Your task to perform on an android device: toggle location history Image 0: 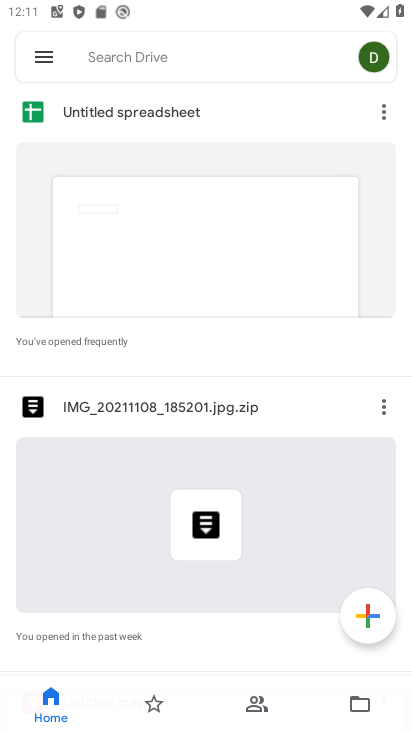
Step 0: press home button
Your task to perform on an android device: toggle location history Image 1: 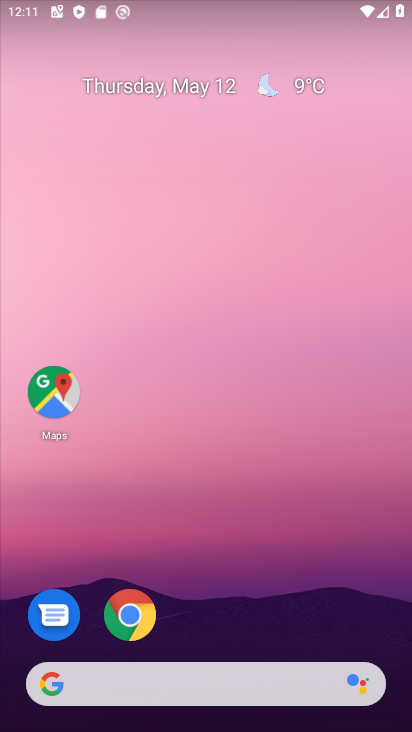
Step 1: drag from (234, 612) to (145, 59)
Your task to perform on an android device: toggle location history Image 2: 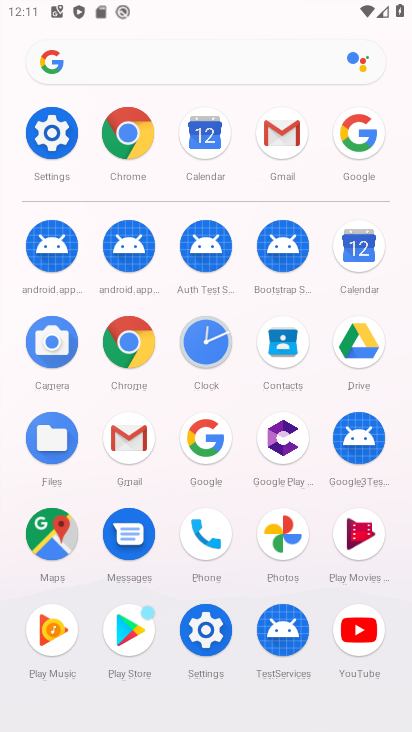
Step 2: click (55, 142)
Your task to perform on an android device: toggle location history Image 3: 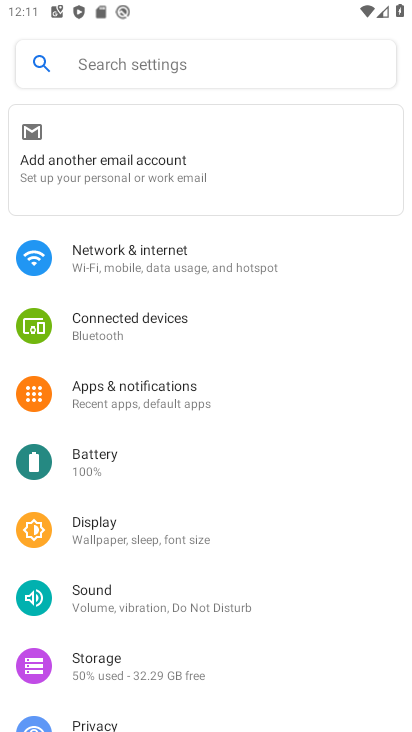
Step 3: drag from (197, 641) to (48, 192)
Your task to perform on an android device: toggle location history Image 4: 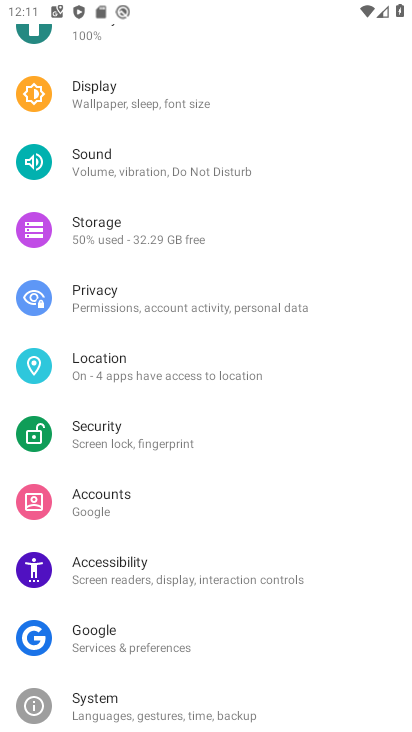
Step 4: click (138, 376)
Your task to perform on an android device: toggle location history Image 5: 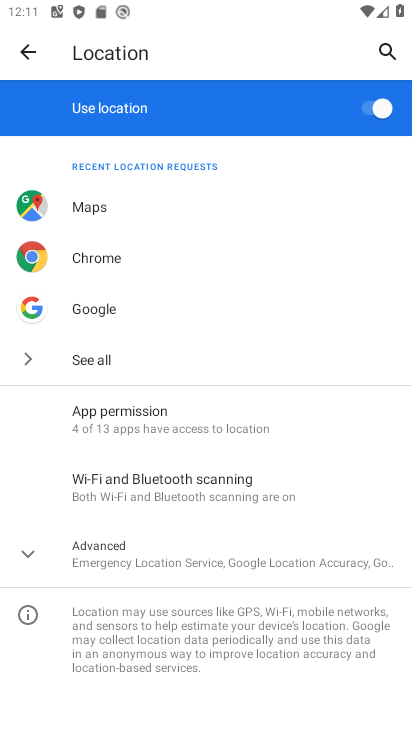
Step 5: click (150, 557)
Your task to perform on an android device: toggle location history Image 6: 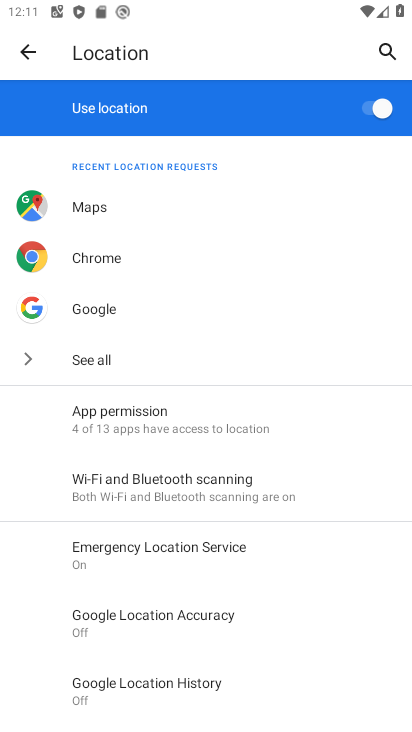
Step 6: click (138, 684)
Your task to perform on an android device: toggle location history Image 7: 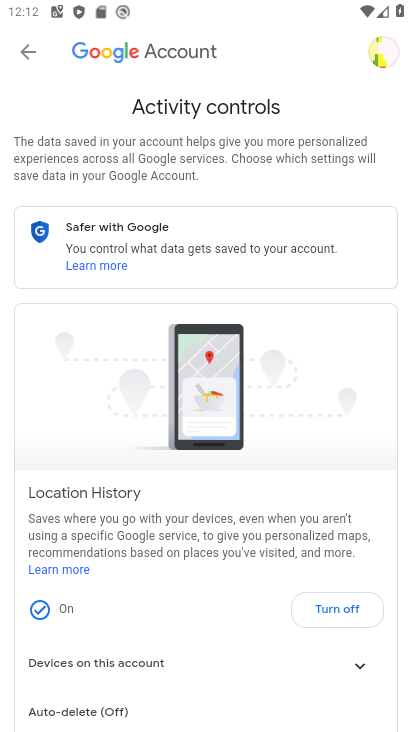
Step 7: drag from (233, 614) to (86, 209)
Your task to perform on an android device: toggle location history Image 8: 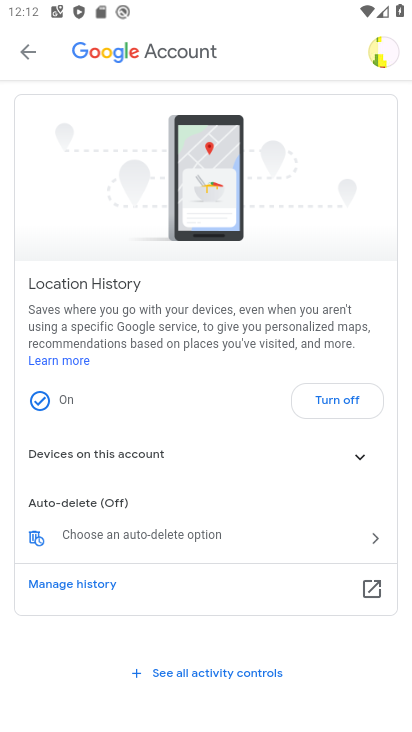
Step 8: click (316, 390)
Your task to perform on an android device: toggle location history Image 9: 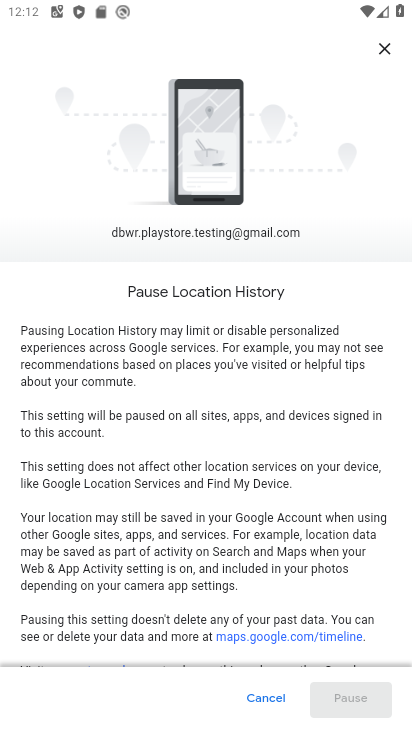
Step 9: drag from (324, 533) to (237, 154)
Your task to perform on an android device: toggle location history Image 10: 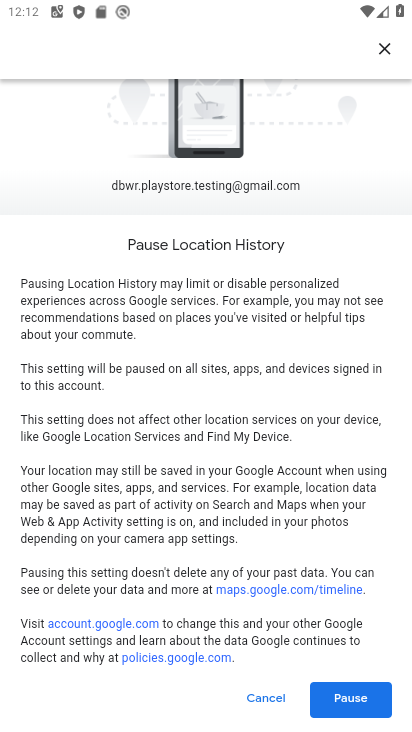
Step 10: click (377, 691)
Your task to perform on an android device: toggle location history Image 11: 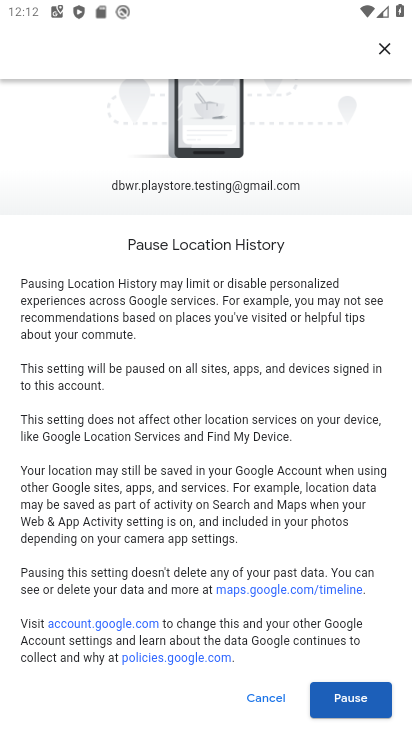
Step 11: click (328, 705)
Your task to perform on an android device: toggle location history Image 12: 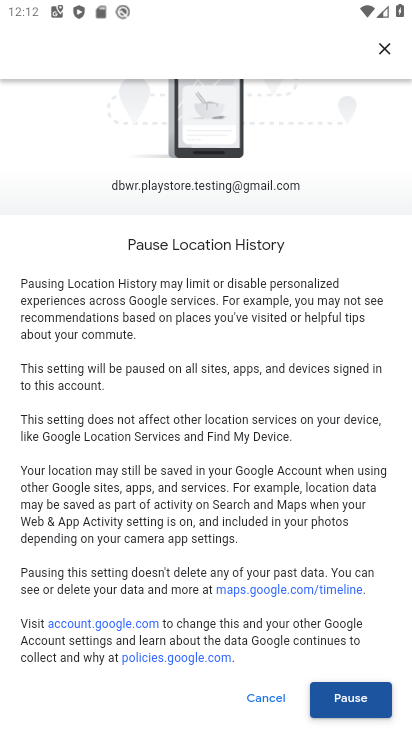
Step 12: click (320, 685)
Your task to perform on an android device: toggle location history Image 13: 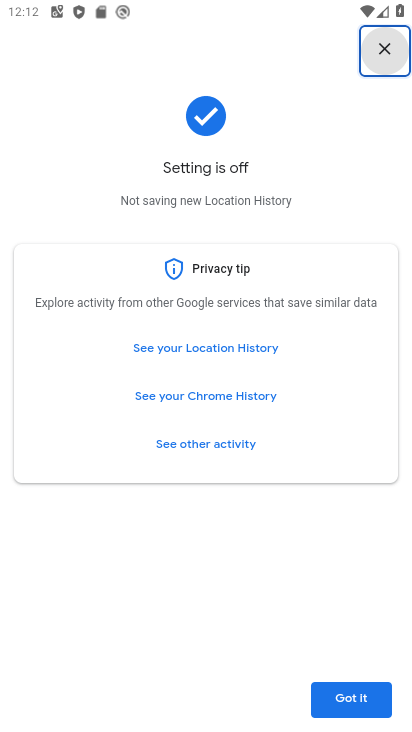
Step 13: task complete